Your task to perform on an android device: Open Chrome and go to the settings page Image 0: 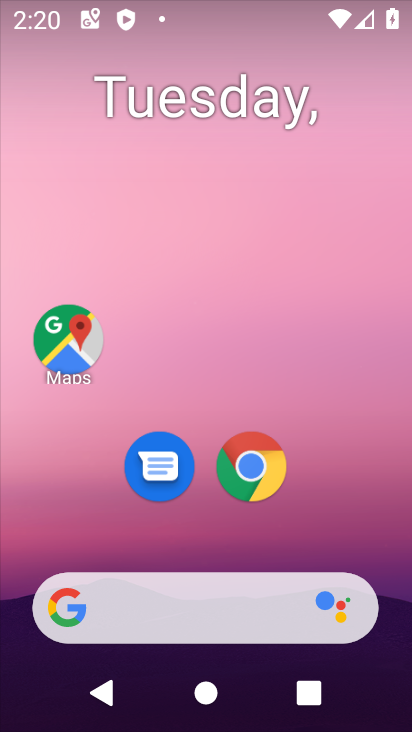
Step 0: click (274, 460)
Your task to perform on an android device: Open Chrome and go to the settings page Image 1: 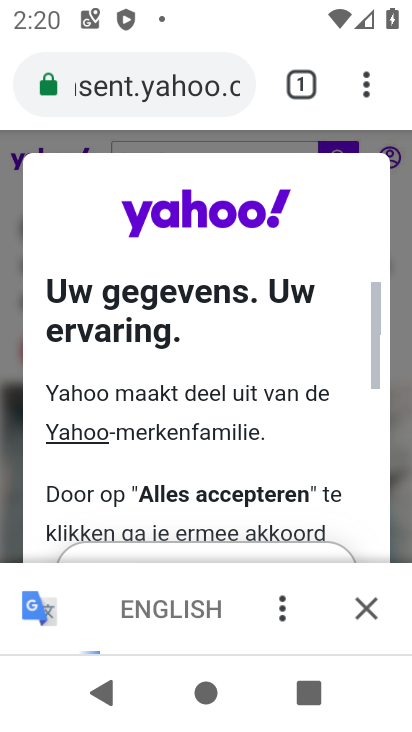
Step 1: task complete